Your task to perform on an android device: clear all cookies in the chrome app Image 0: 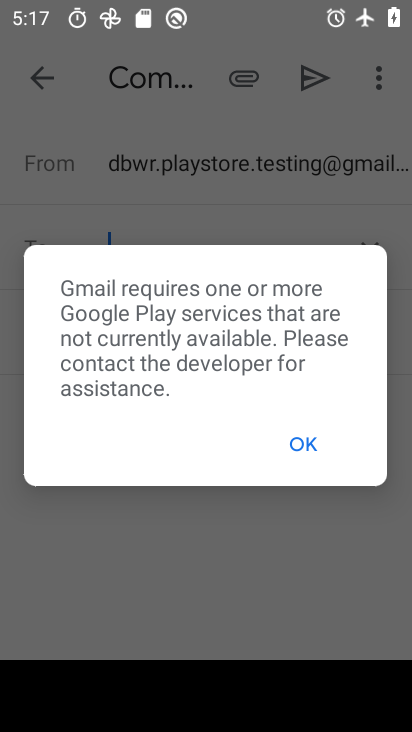
Step 0: press home button
Your task to perform on an android device: clear all cookies in the chrome app Image 1: 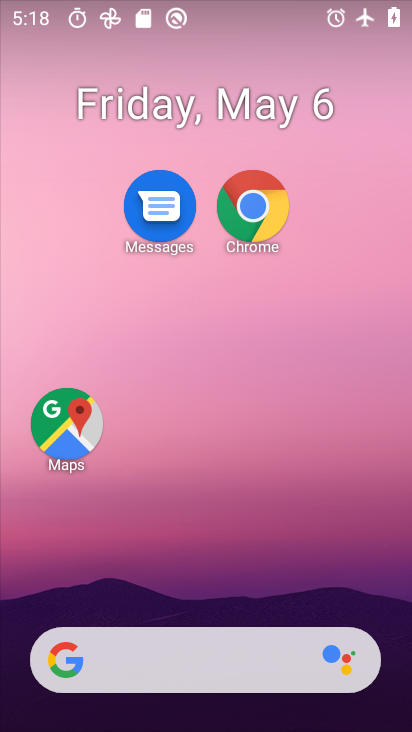
Step 1: drag from (176, 629) to (167, 305)
Your task to perform on an android device: clear all cookies in the chrome app Image 2: 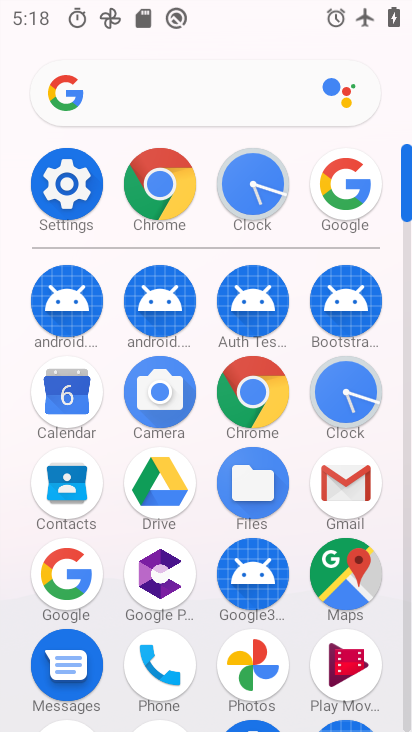
Step 2: click (151, 189)
Your task to perform on an android device: clear all cookies in the chrome app Image 3: 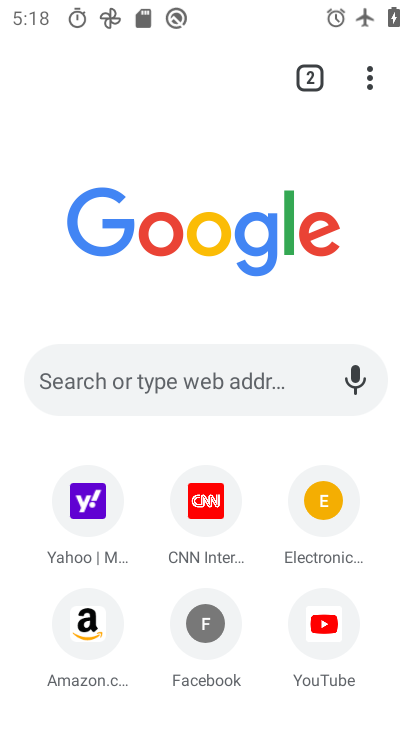
Step 3: click (368, 77)
Your task to perform on an android device: clear all cookies in the chrome app Image 4: 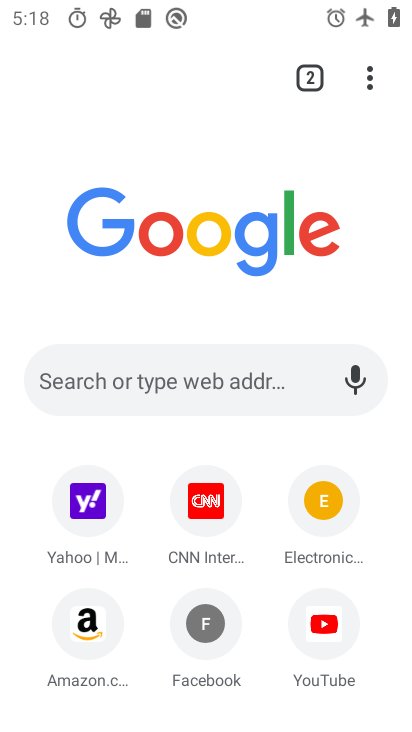
Step 4: click (365, 79)
Your task to perform on an android device: clear all cookies in the chrome app Image 5: 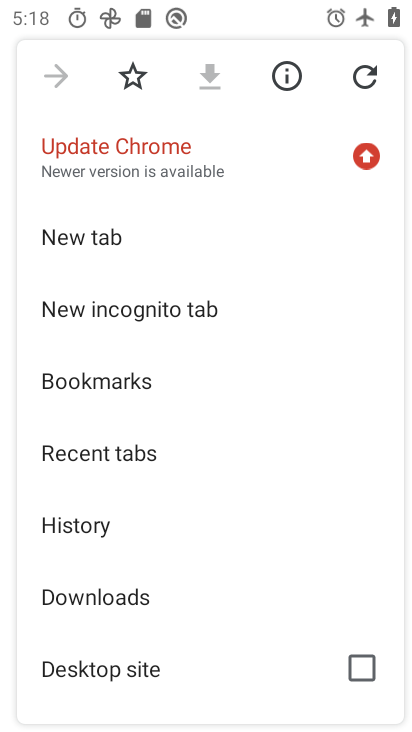
Step 5: drag from (187, 697) to (157, 384)
Your task to perform on an android device: clear all cookies in the chrome app Image 6: 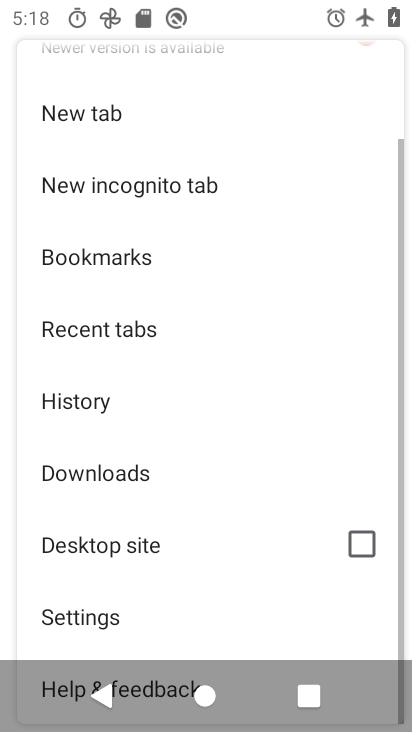
Step 6: drag from (152, 588) to (133, 304)
Your task to perform on an android device: clear all cookies in the chrome app Image 7: 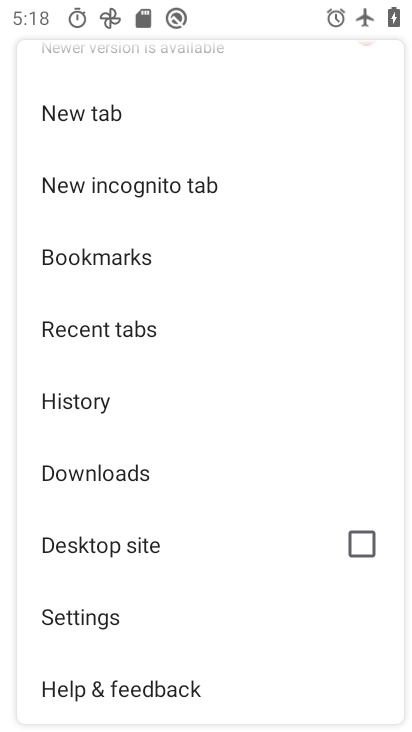
Step 7: click (88, 617)
Your task to perform on an android device: clear all cookies in the chrome app Image 8: 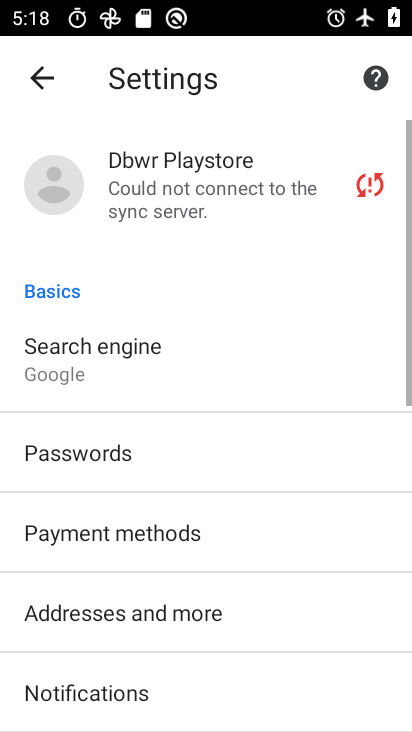
Step 8: drag from (102, 720) to (67, 343)
Your task to perform on an android device: clear all cookies in the chrome app Image 9: 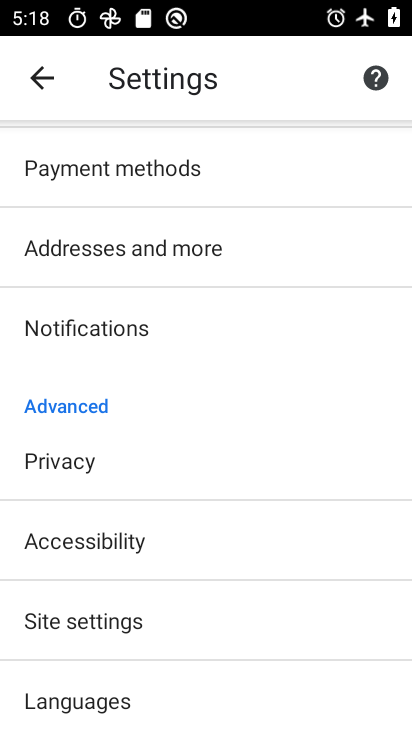
Step 9: click (107, 450)
Your task to perform on an android device: clear all cookies in the chrome app Image 10: 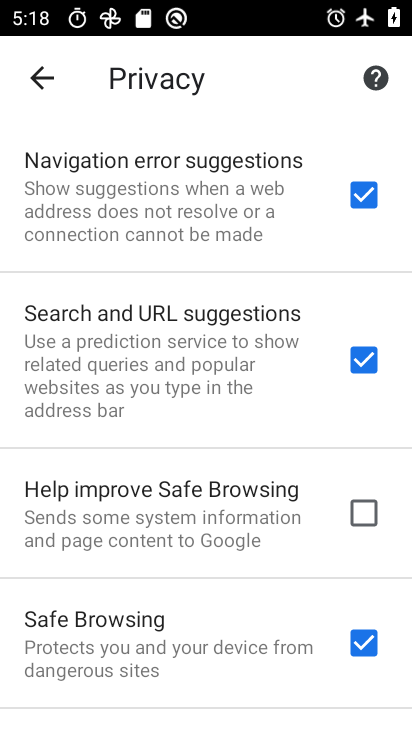
Step 10: drag from (225, 604) to (168, 229)
Your task to perform on an android device: clear all cookies in the chrome app Image 11: 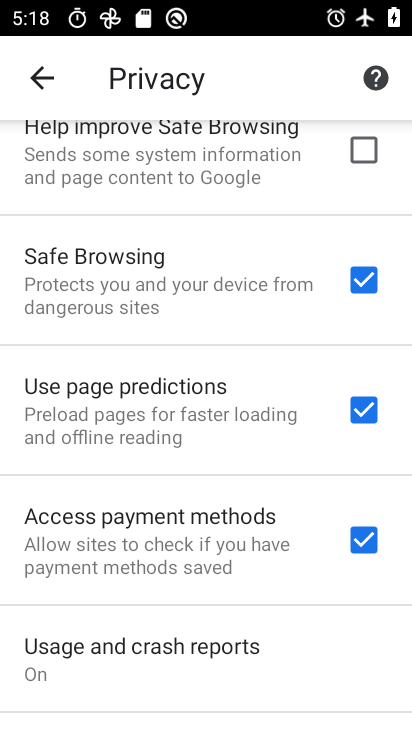
Step 11: drag from (145, 662) to (129, 351)
Your task to perform on an android device: clear all cookies in the chrome app Image 12: 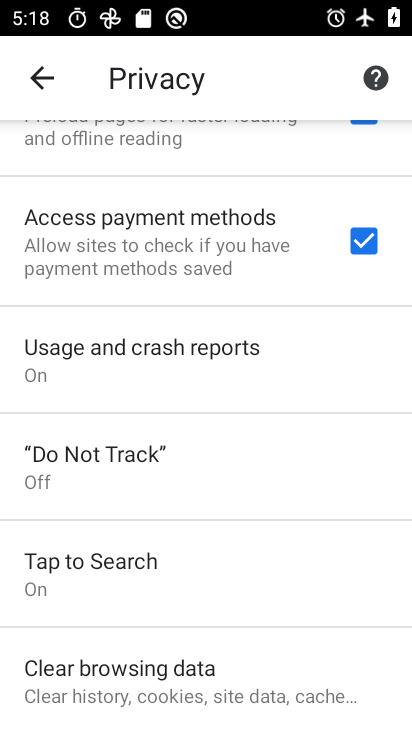
Step 12: drag from (106, 685) to (92, 393)
Your task to perform on an android device: clear all cookies in the chrome app Image 13: 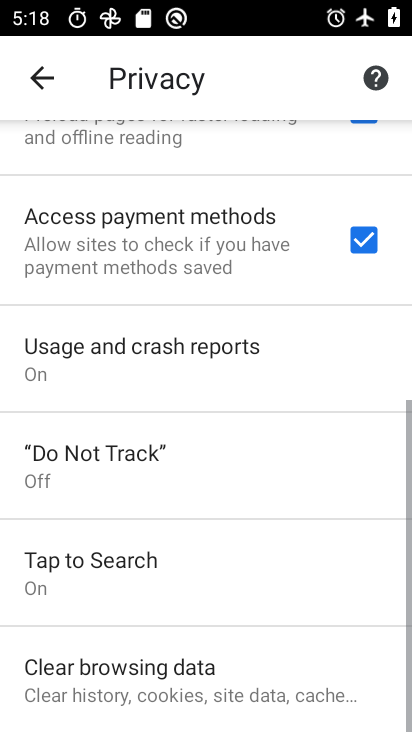
Step 13: click (121, 680)
Your task to perform on an android device: clear all cookies in the chrome app Image 14: 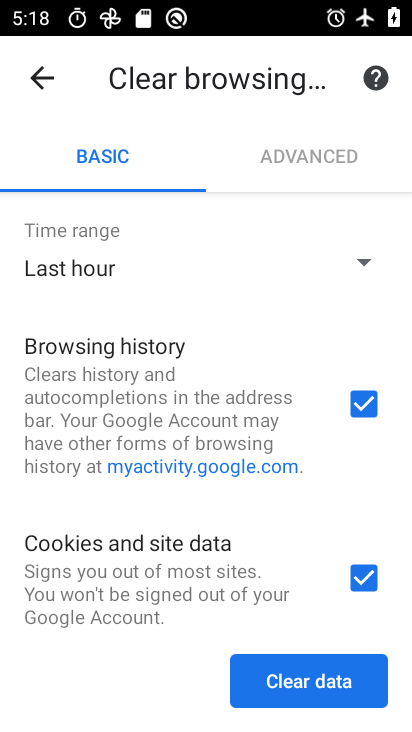
Step 14: click (368, 396)
Your task to perform on an android device: clear all cookies in the chrome app Image 15: 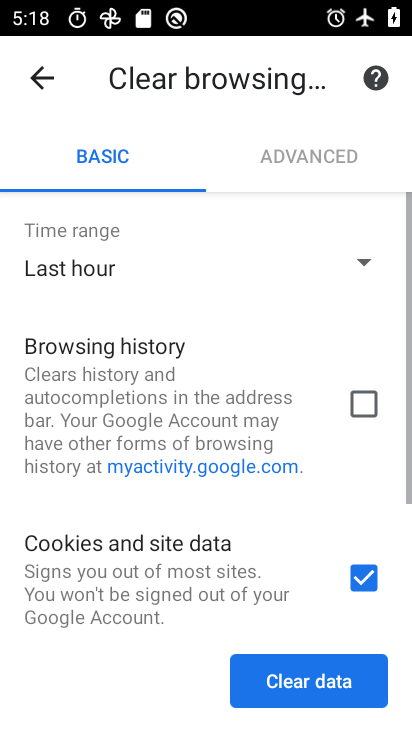
Step 15: drag from (176, 675) to (172, 365)
Your task to perform on an android device: clear all cookies in the chrome app Image 16: 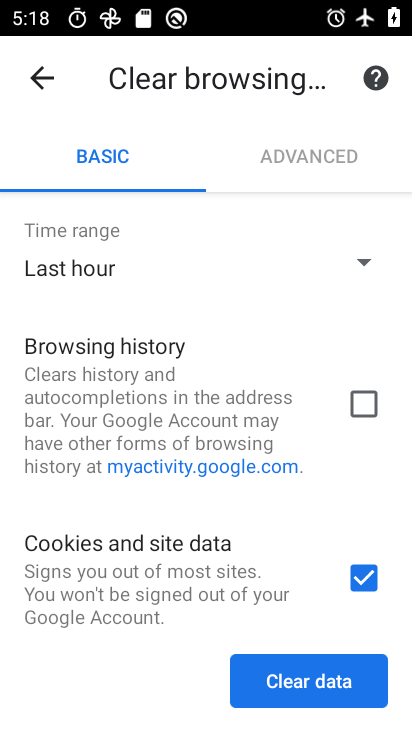
Step 16: drag from (293, 523) to (268, 250)
Your task to perform on an android device: clear all cookies in the chrome app Image 17: 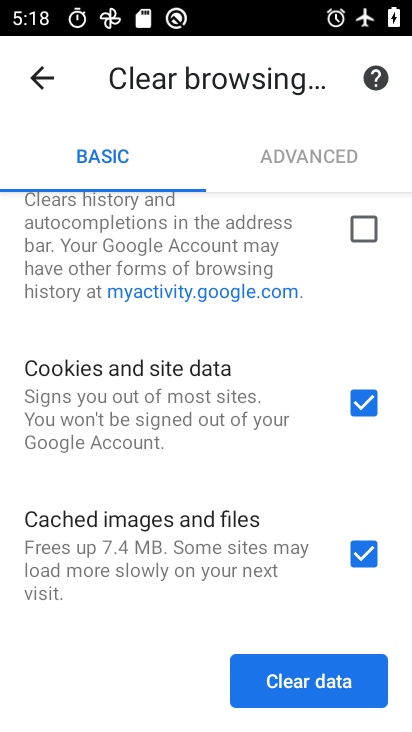
Step 17: click (357, 558)
Your task to perform on an android device: clear all cookies in the chrome app Image 18: 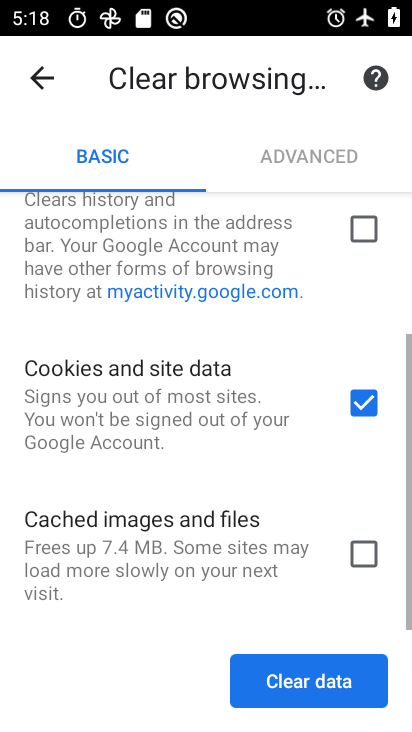
Step 18: click (269, 687)
Your task to perform on an android device: clear all cookies in the chrome app Image 19: 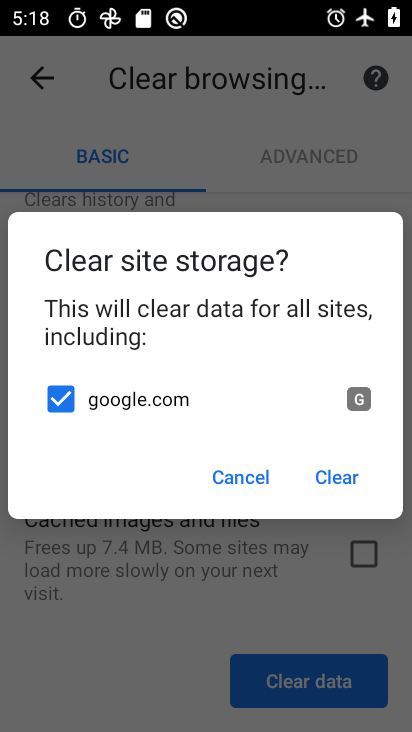
Step 19: click (346, 483)
Your task to perform on an android device: clear all cookies in the chrome app Image 20: 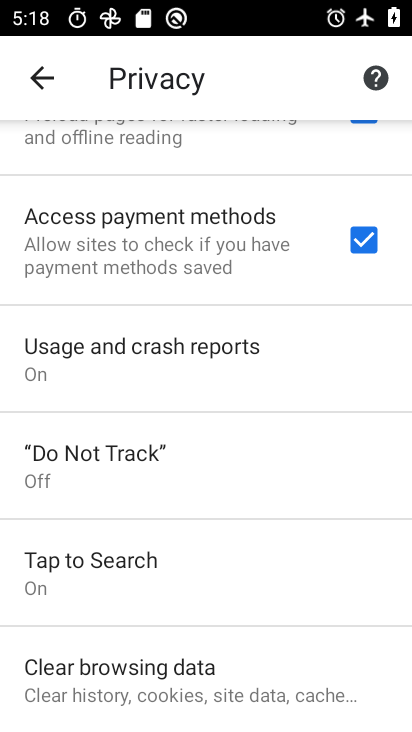
Step 20: task complete